Your task to perform on an android device: install app "Skype" Image 0: 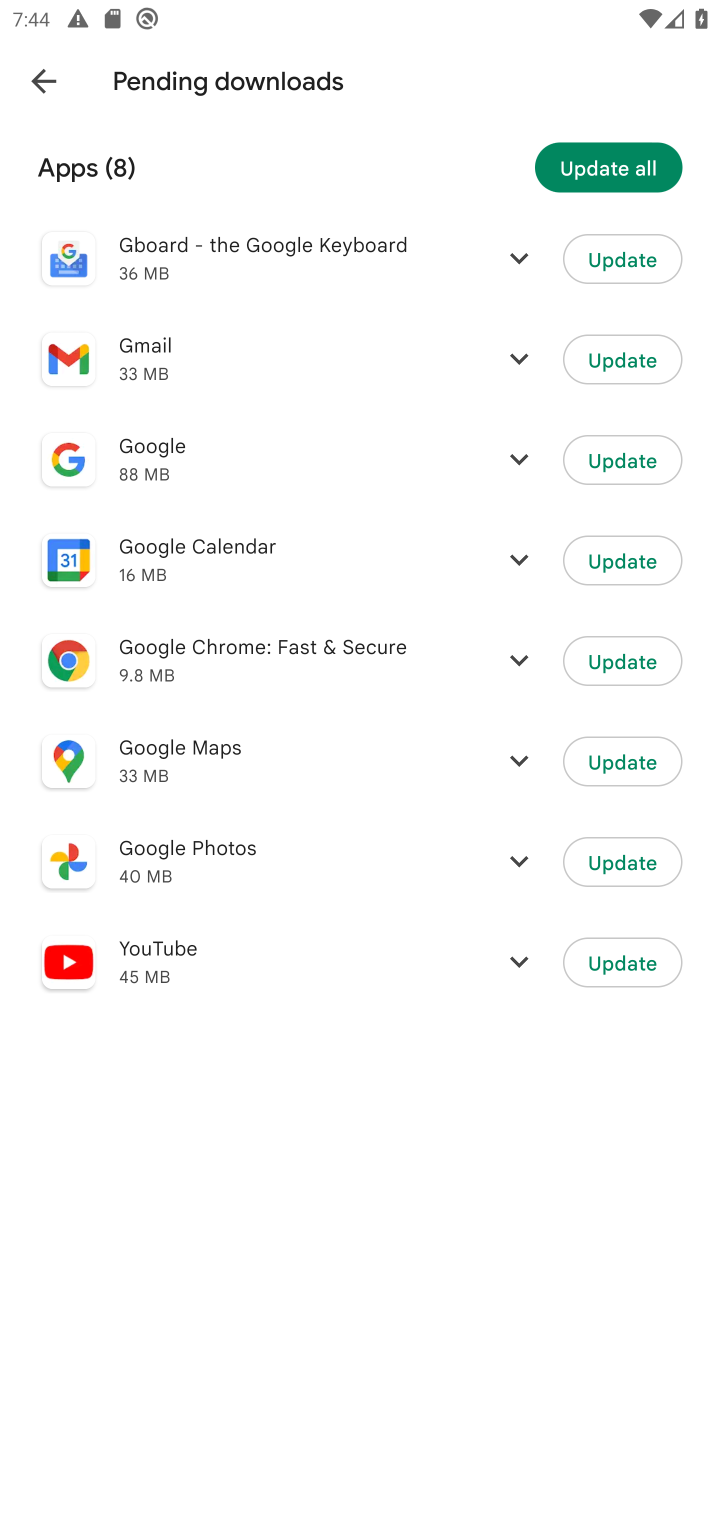
Step 0: press home button
Your task to perform on an android device: install app "Skype" Image 1: 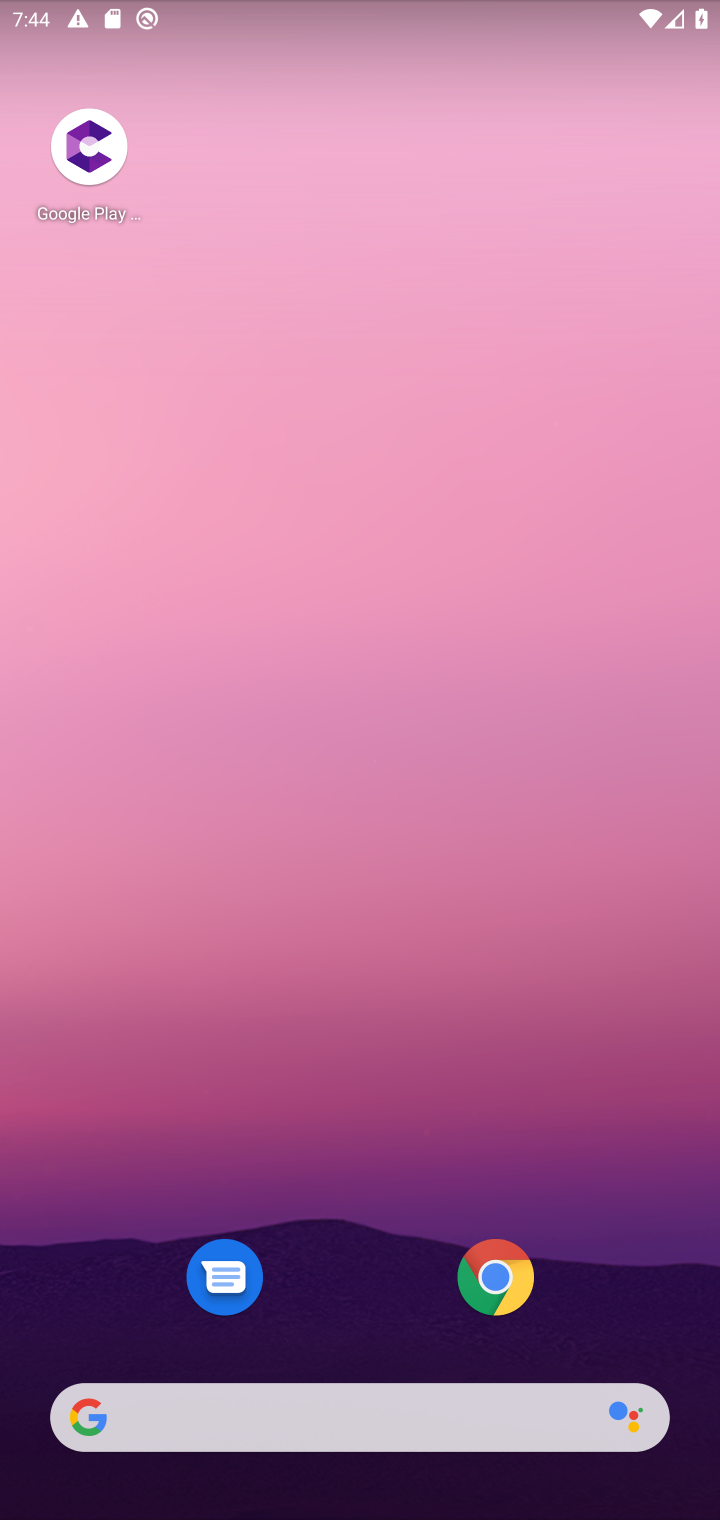
Step 1: drag from (524, 1448) to (329, 3)
Your task to perform on an android device: install app "Skype" Image 2: 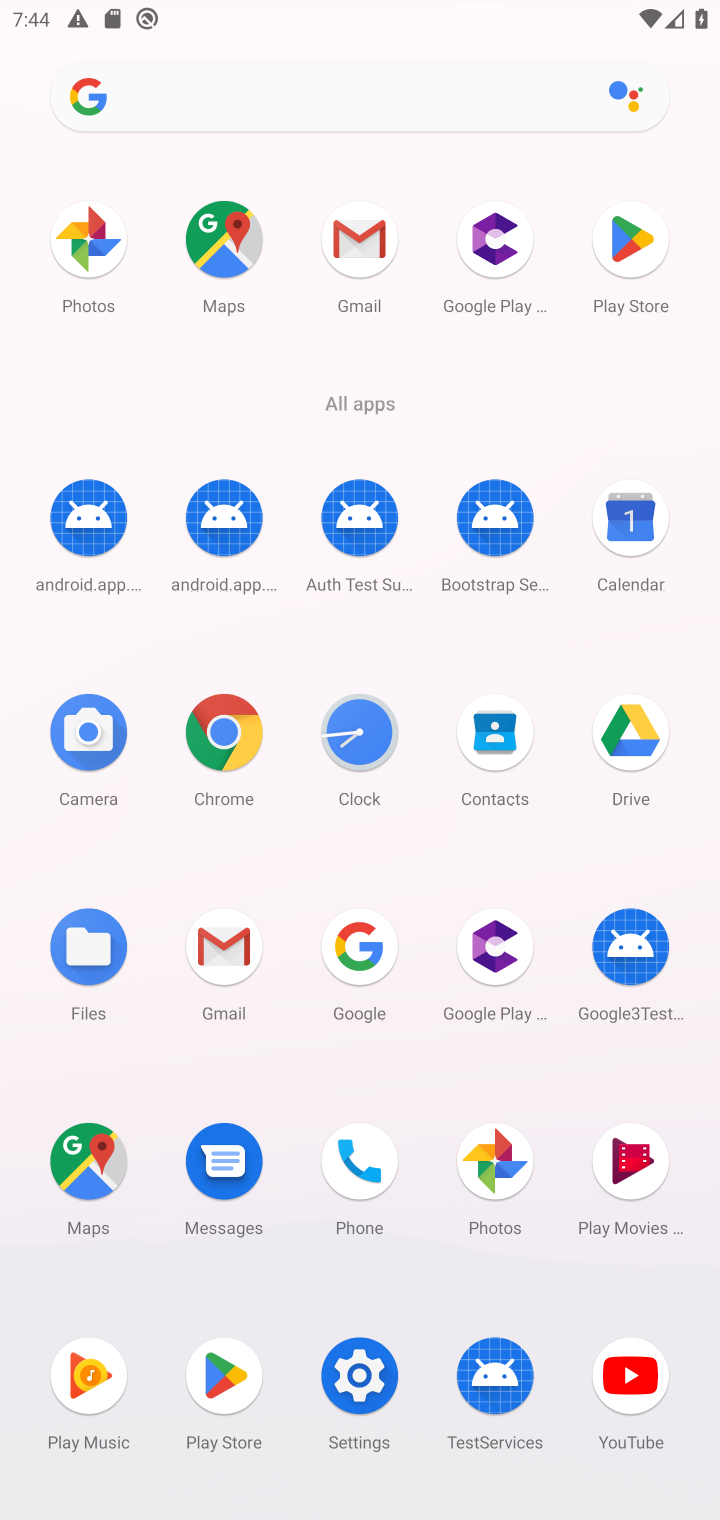
Step 2: click (217, 1390)
Your task to perform on an android device: install app "Skype" Image 3: 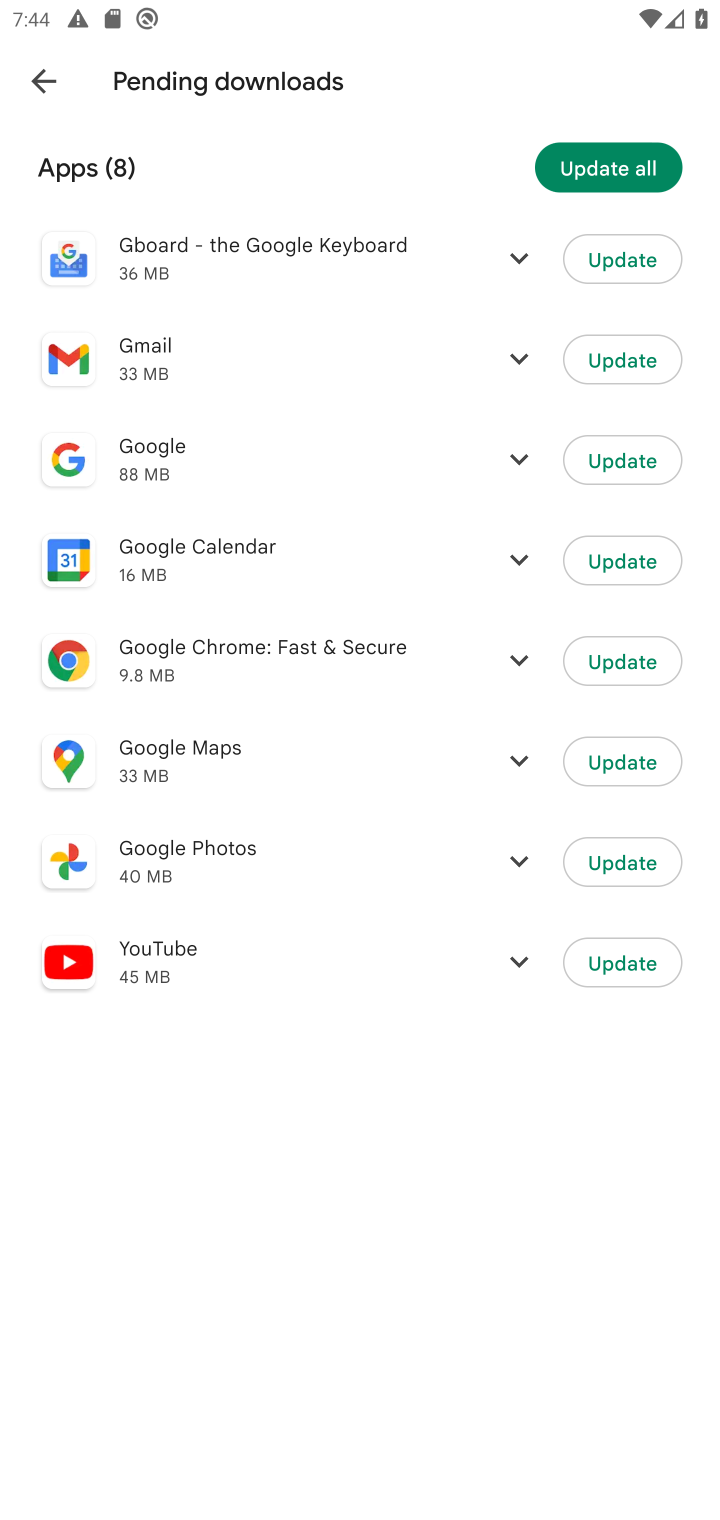
Step 3: click (32, 74)
Your task to perform on an android device: install app "Skype" Image 4: 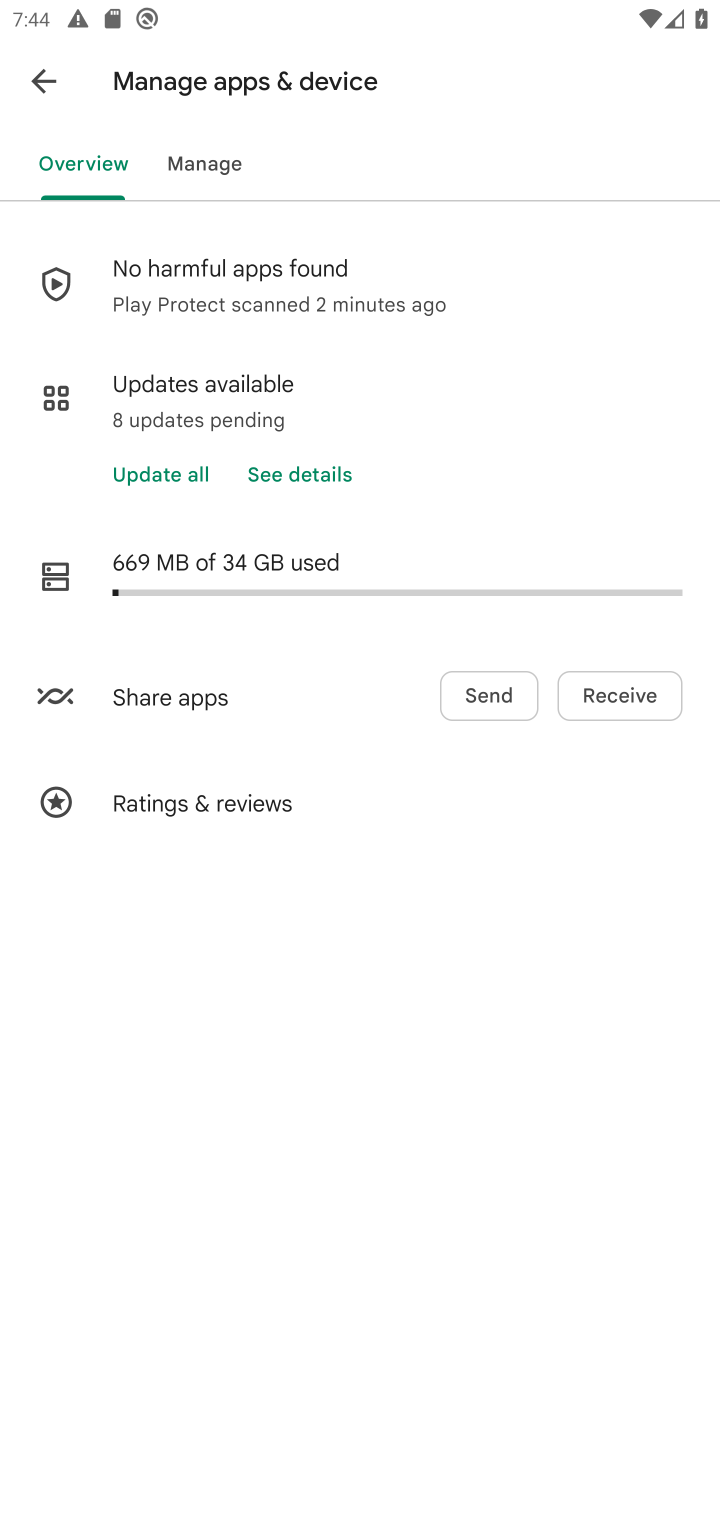
Step 4: click (35, 76)
Your task to perform on an android device: install app "Skype" Image 5: 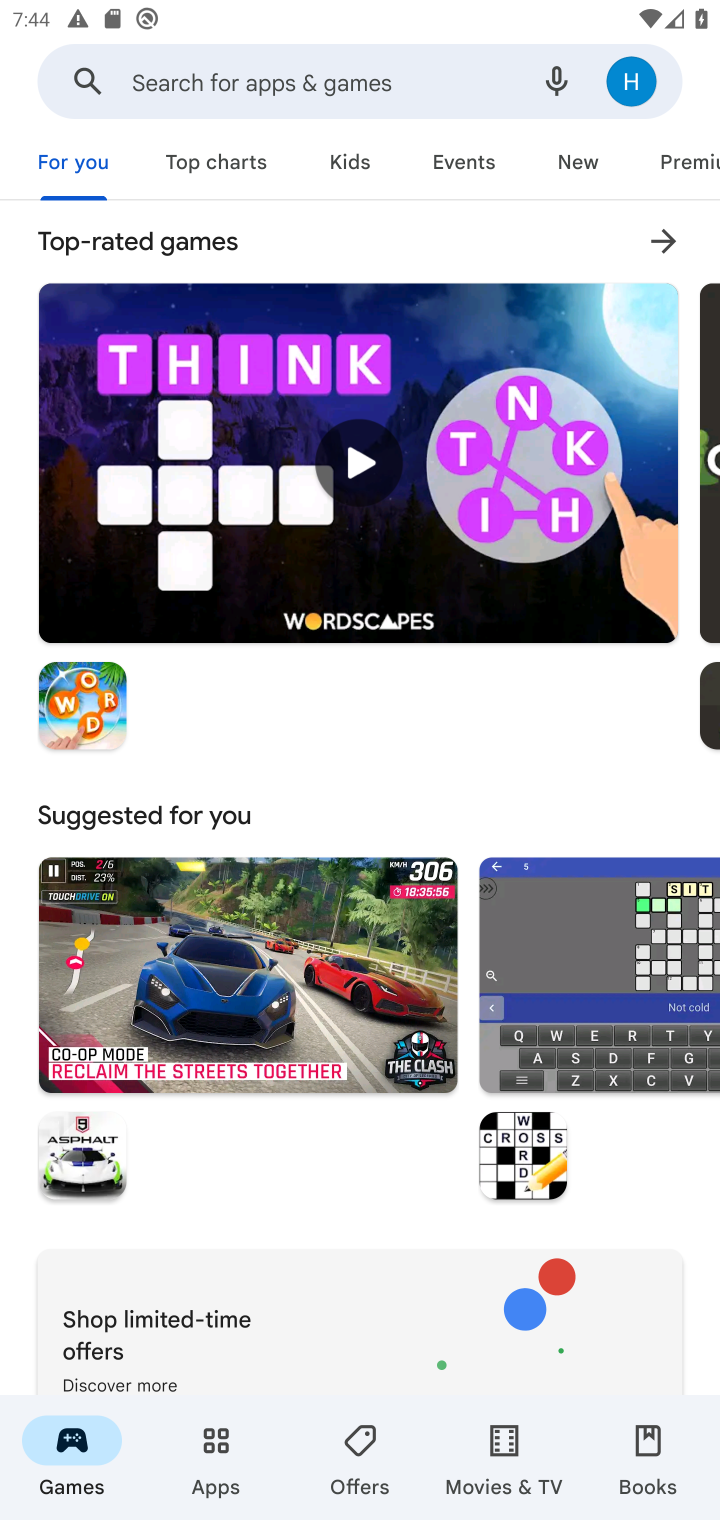
Step 5: click (379, 75)
Your task to perform on an android device: install app "Skype" Image 6: 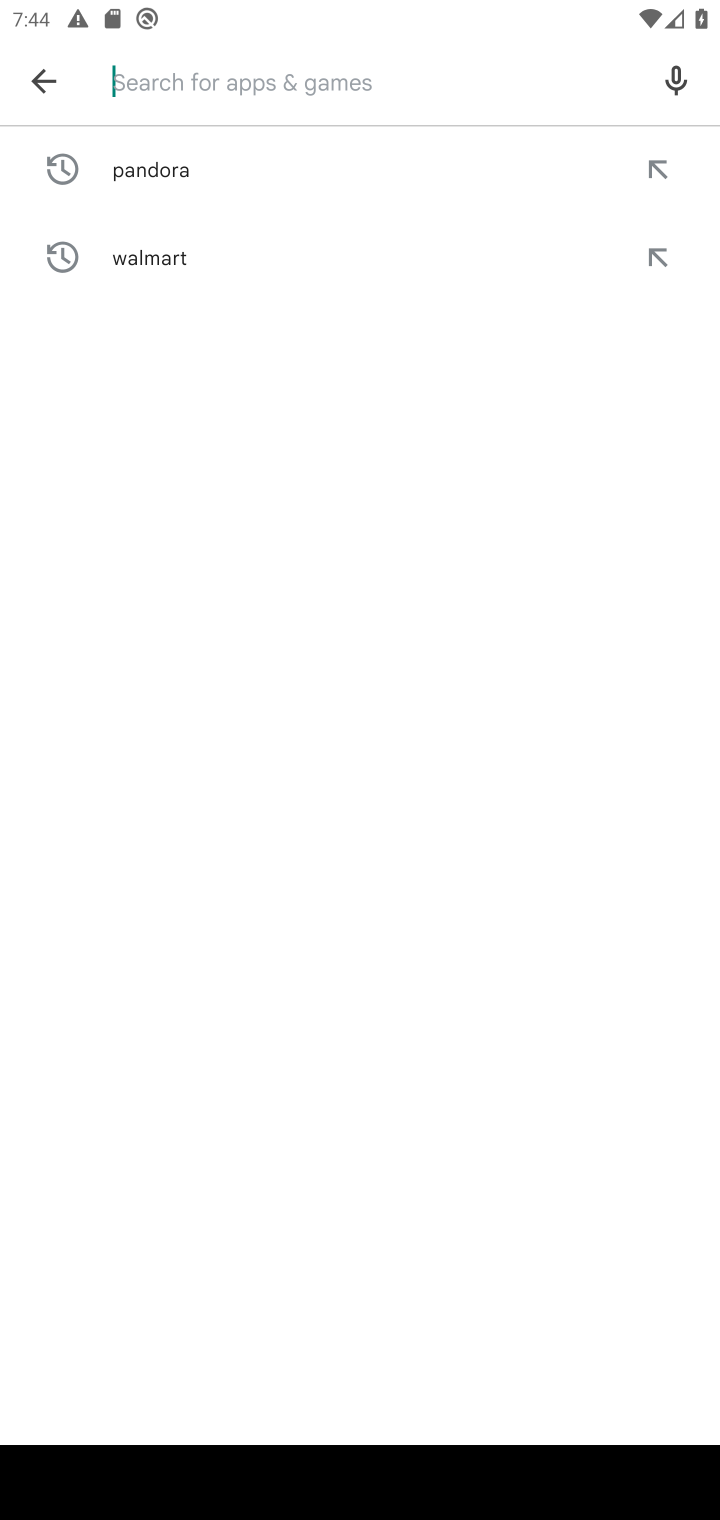
Step 6: type "skype"
Your task to perform on an android device: install app "Skype" Image 7: 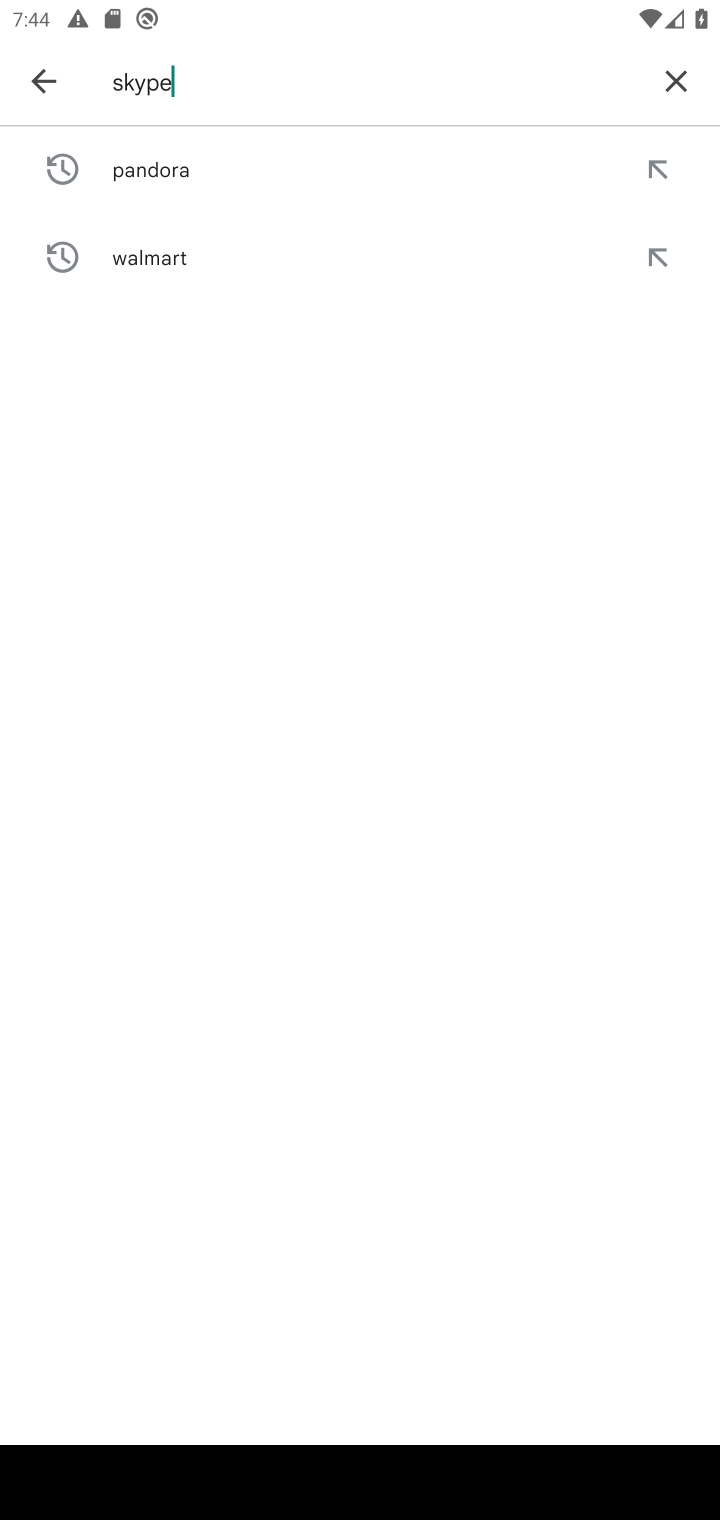
Step 7: type ""
Your task to perform on an android device: install app "Skype" Image 8: 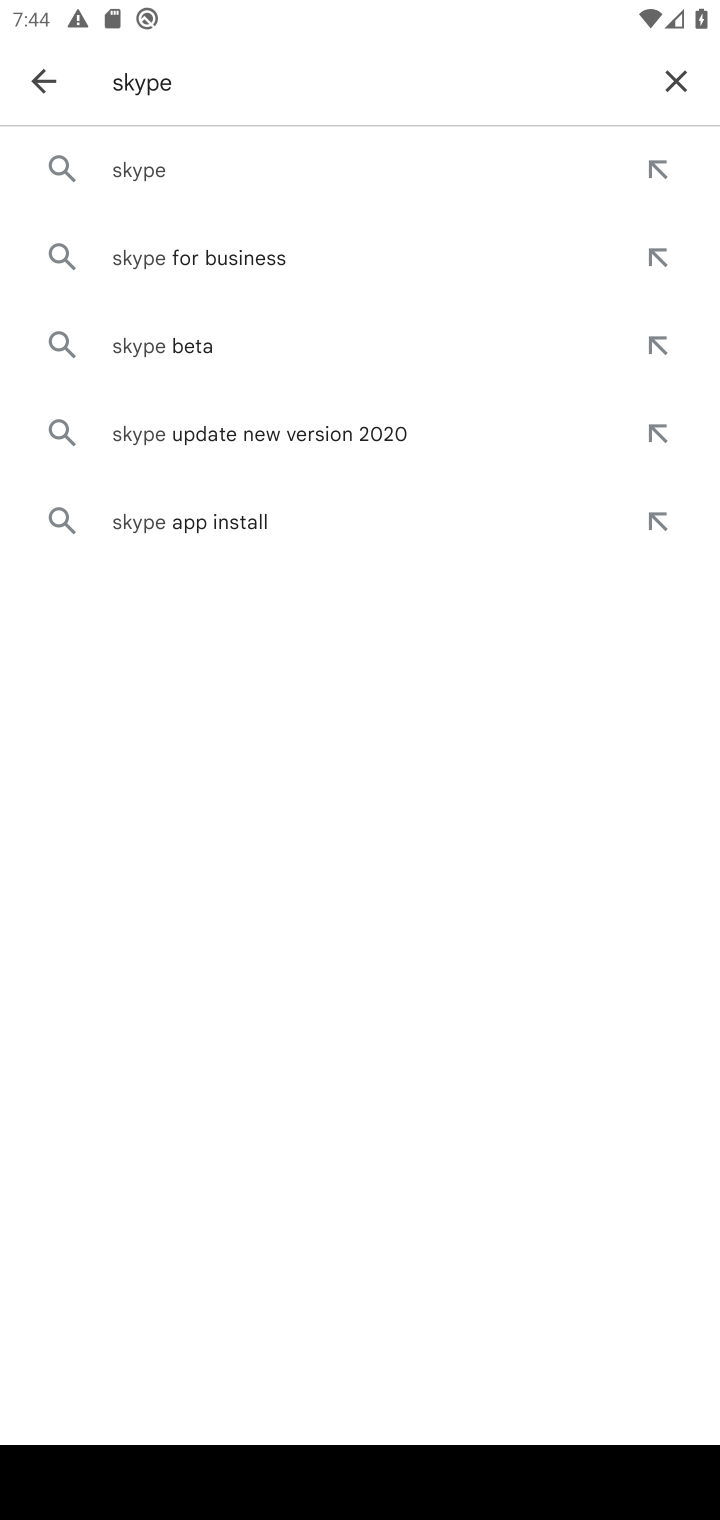
Step 8: click (180, 163)
Your task to perform on an android device: install app "Skype" Image 9: 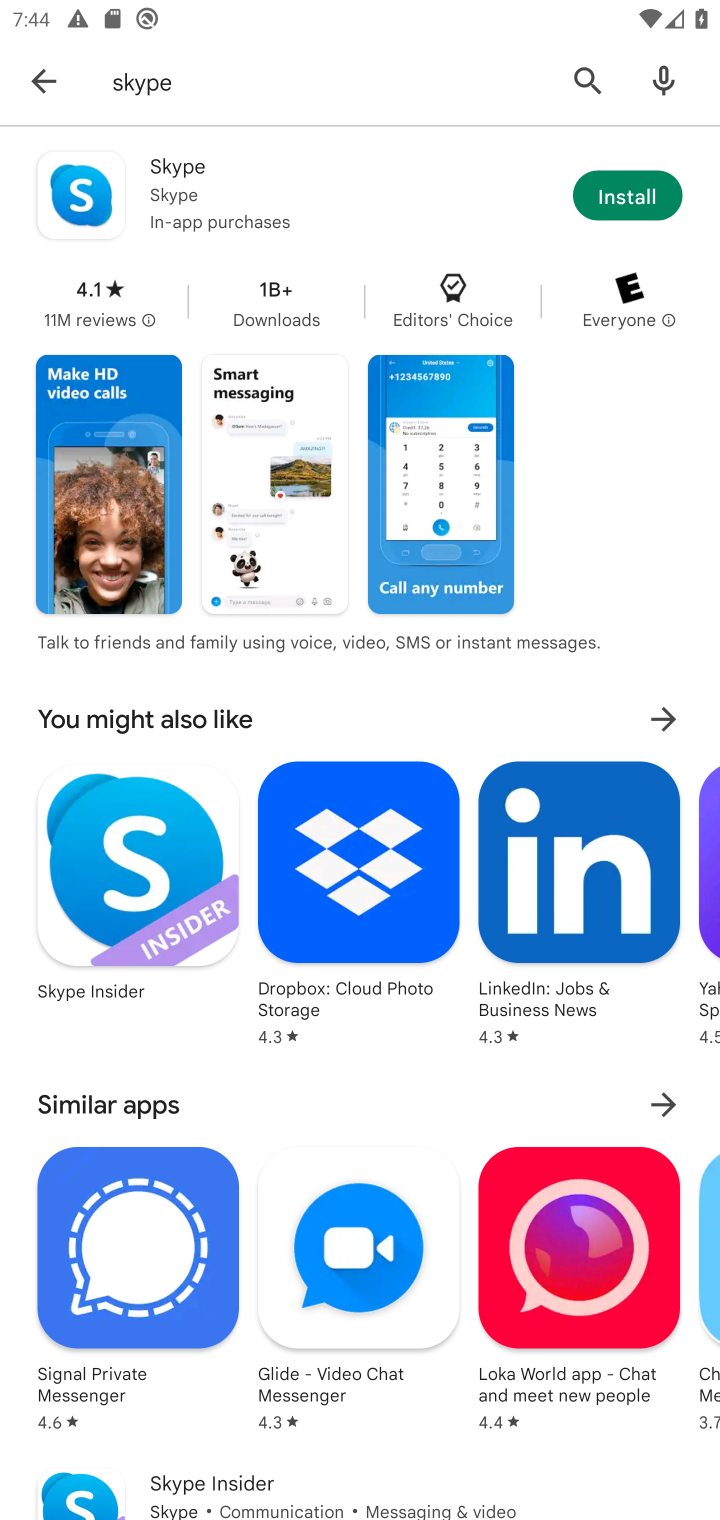
Step 9: click (622, 200)
Your task to perform on an android device: install app "Skype" Image 10: 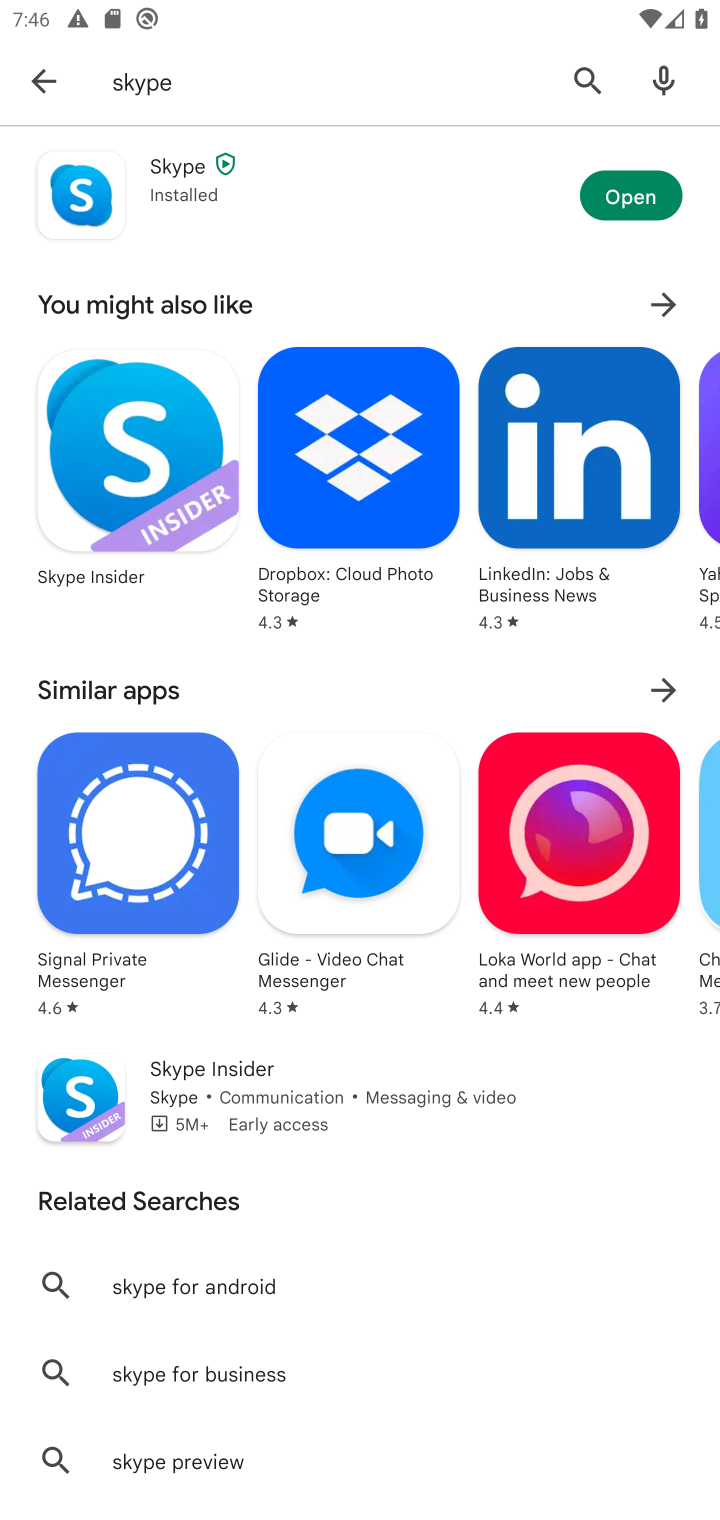
Step 10: click (619, 183)
Your task to perform on an android device: install app "Skype" Image 11: 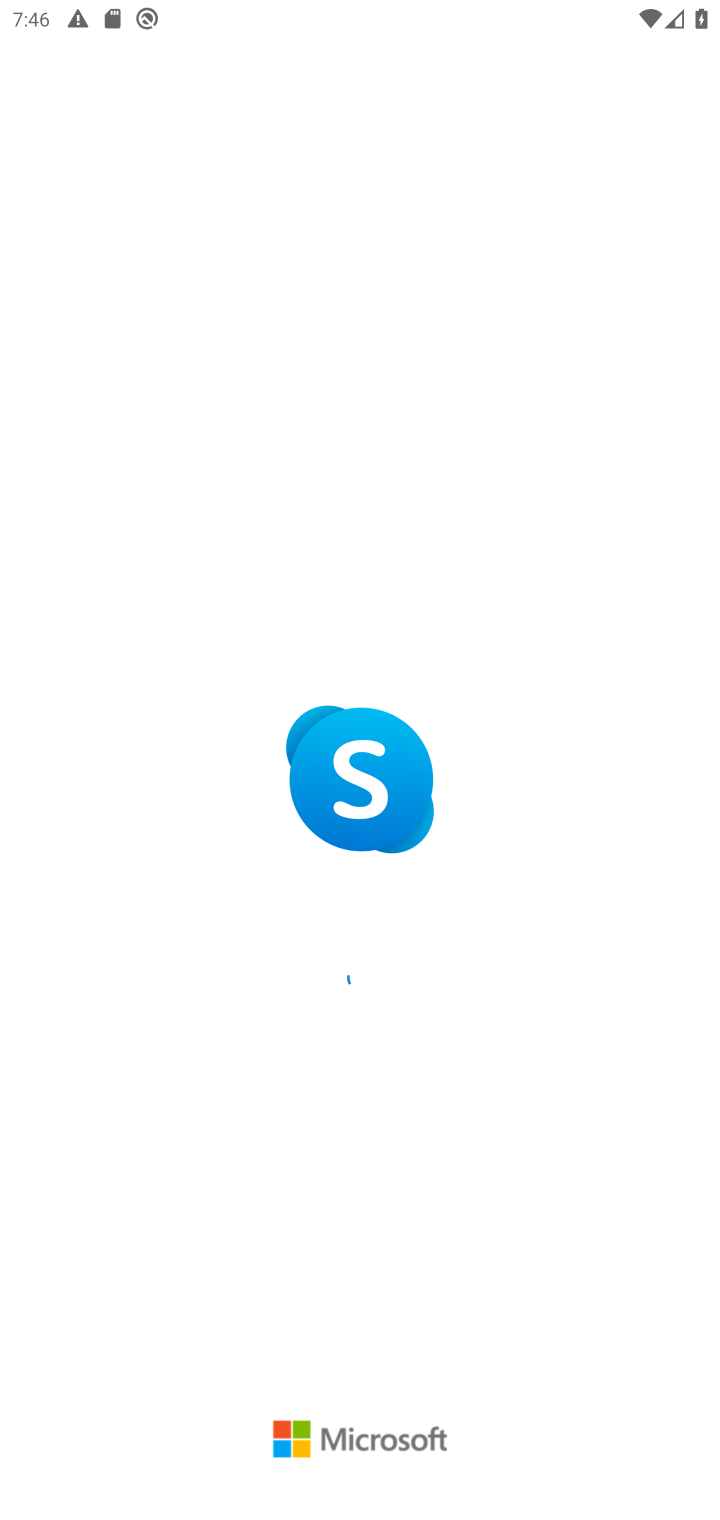
Step 11: task complete